Your task to perform on an android device: Open Google Chrome and open the bookmarks view Image 0: 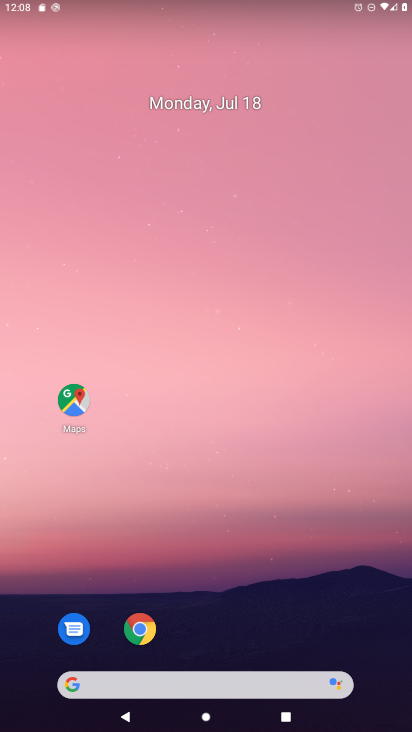
Step 0: click (141, 628)
Your task to perform on an android device: Open Google Chrome and open the bookmarks view Image 1: 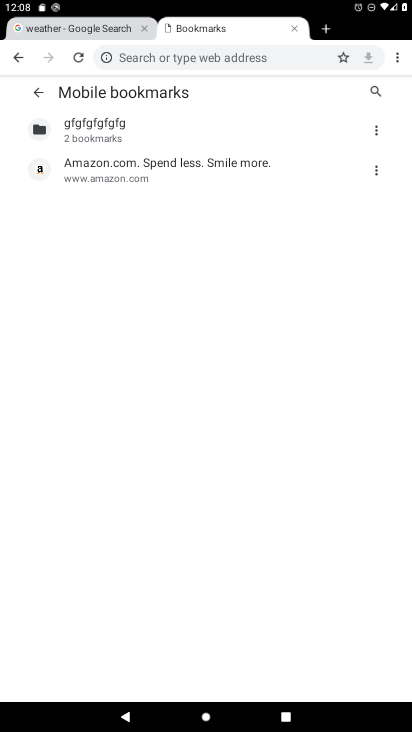
Step 1: task complete